Your task to perform on an android device: Open calendar and show me the fourth week of next month Image 0: 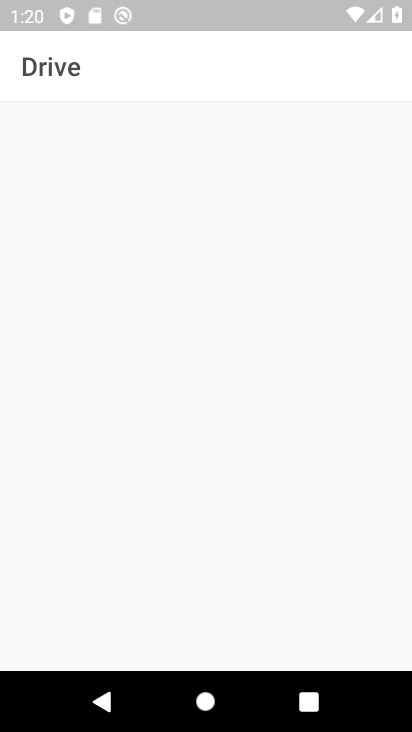
Step 0: press home button
Your task to perform on an android device: Open calendar and show me the fourth week of next month Image 1: 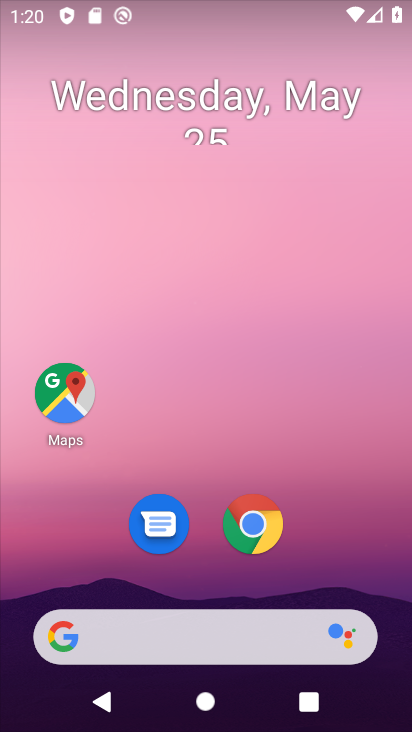
Step 1: drag from (299, 519) to (268, 40)
Your task to perform on an android device: Open calendar and show me the fourth week of next month Image 2: 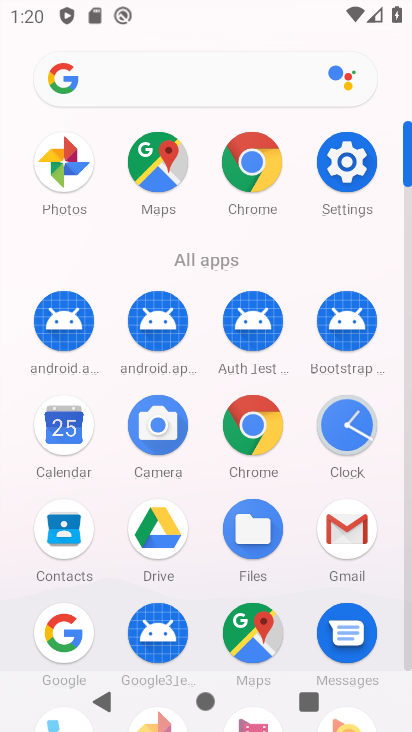
Step 2: click (62, 426)
Your task to perform on an android device: Open calendar and show me the fourth week of next month Image 3: 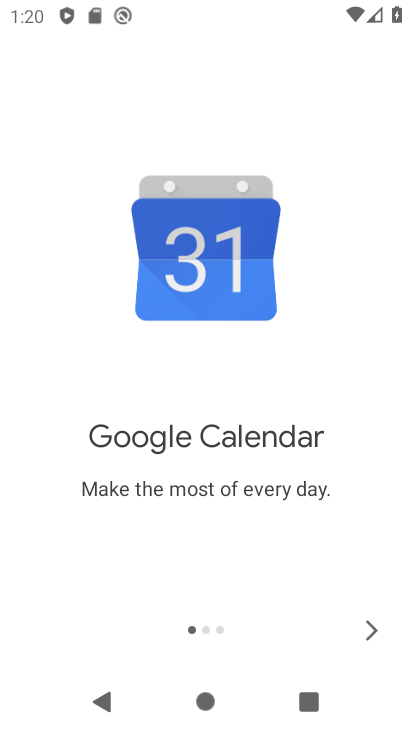
Step 3: click (364, 622)
Your task to perform on an android device: Open calendar and show me the fourth week of next month Image 4: 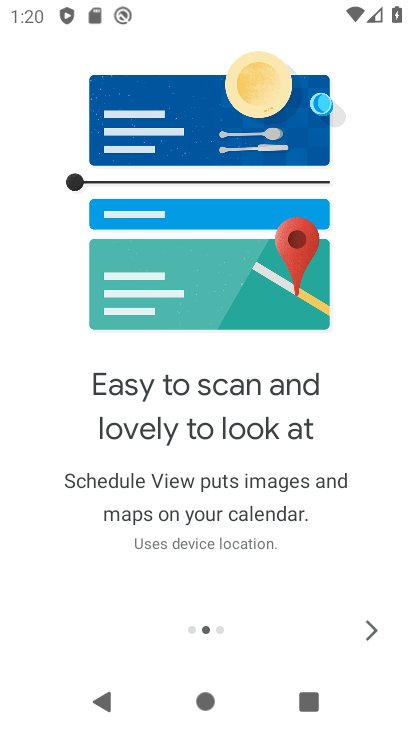
Step 4: click (364, 622)
Your task to perform on an android device: Open calendar and show me the fourth week of next month Image 5: 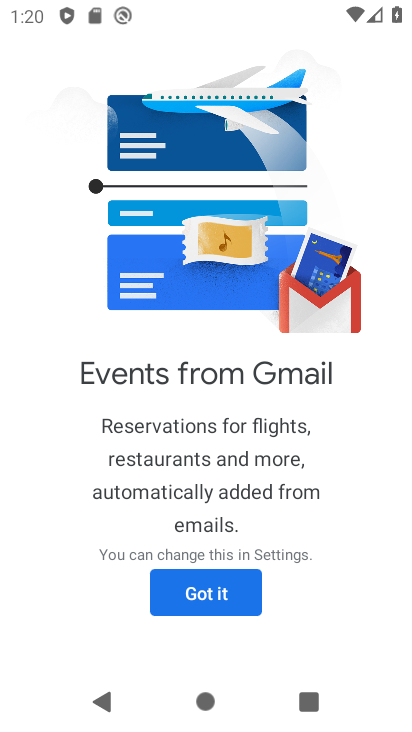
Step 5: click (249, 589)
Your task to perform on an android device: Open calendar and show me the fourth week of next month Image 6: 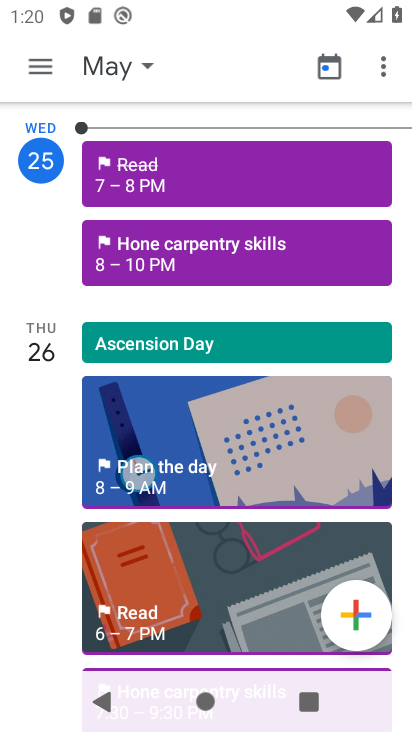
Step 6: click (45, 61)
Your task to perform on an android device: Open calendar and show me the fourth week of next month Image 7: 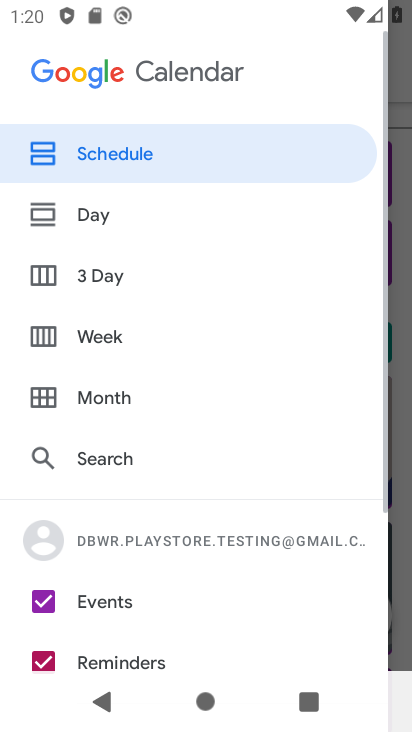
Step 7: click (35, 388)
Your task to perform on an android device: Open calendar and show me the fourth week of next month Image 8: 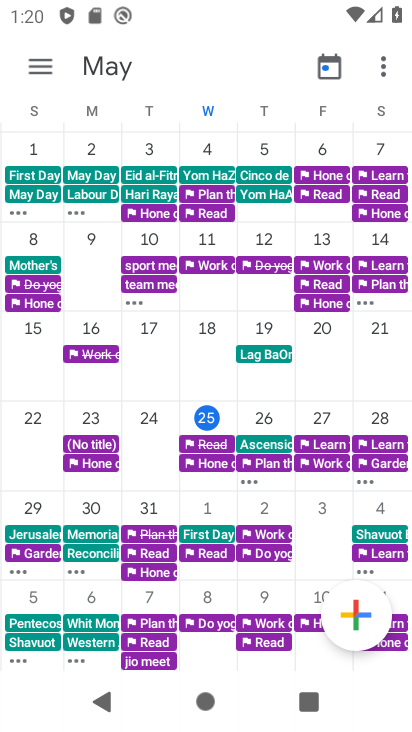
Step 8: drag from (366, 362) to (3, 321)
Your task to perform on an android device: Open calendar and show me the fourth week of next month Image 9: 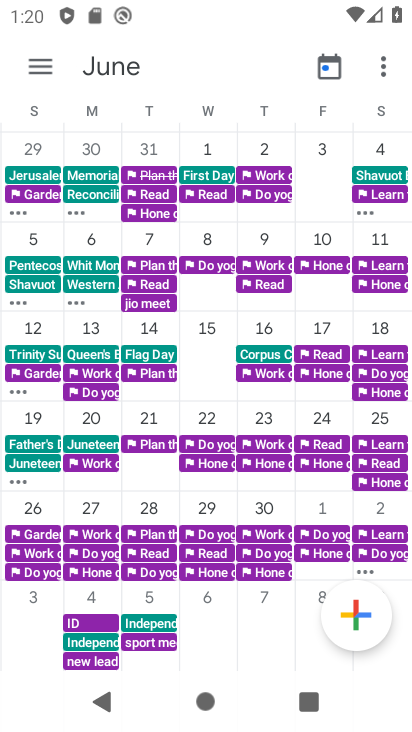
Step 9: click (34, 503)
Your task to perform on an android device: Open calendar and show me the fourth week of next month Image 10: 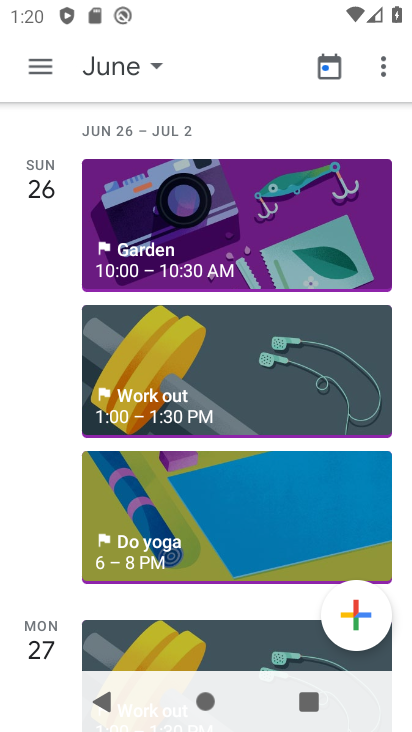
Step 10: click (40, 64)
Your task to perform on an android device: Open calendar and show me the fourth week of next month Image 11: 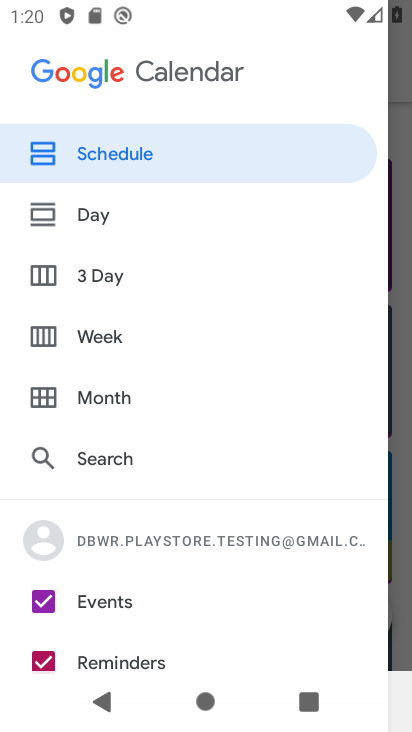
Step 11: click (48, 337)
Your task to perform on an android device: Open calendar and show me the fourth week of next month Image 12: 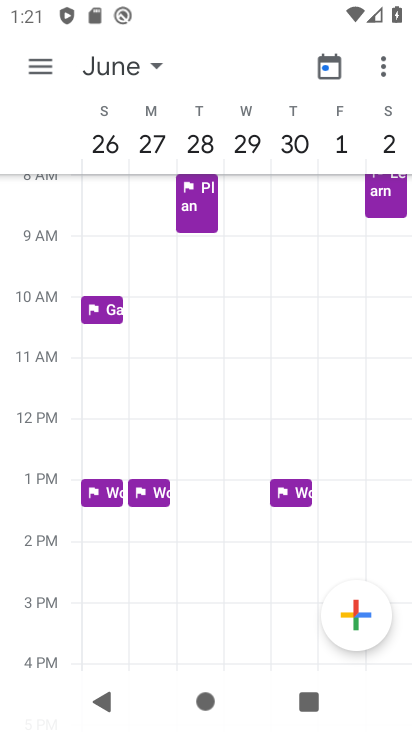
Step 12: task complete